Your task to perform on an android device: check battery use Image 0: 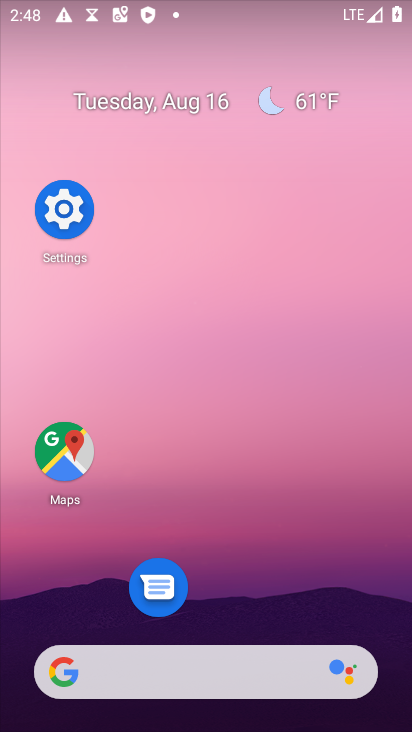
Step 0: drag from (298, 644) to (289, 1)
Your task to perform on an android device: check battery use Image 1: 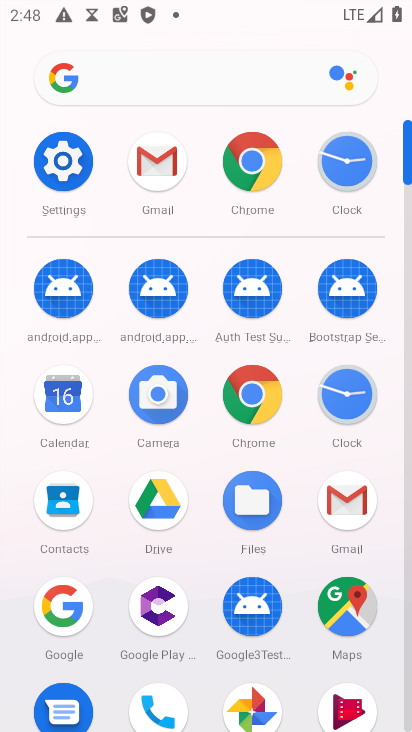
Step 1: click (65, 165)
Your task to perform on an android device: check battery use Image 2: 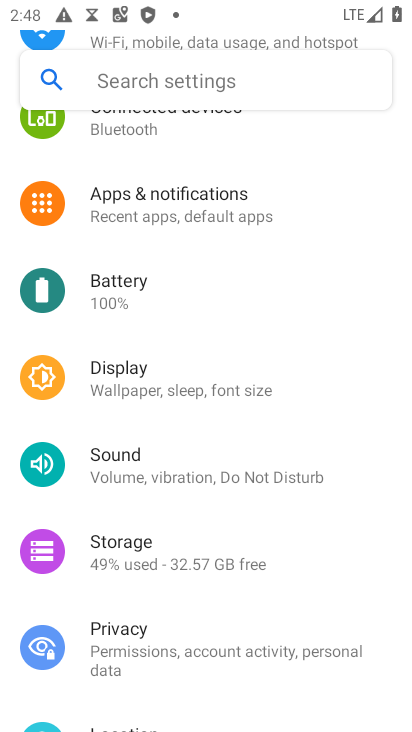
Step 2: click (108, 290)
Your task to perform on an android device: check battery use Image 3: 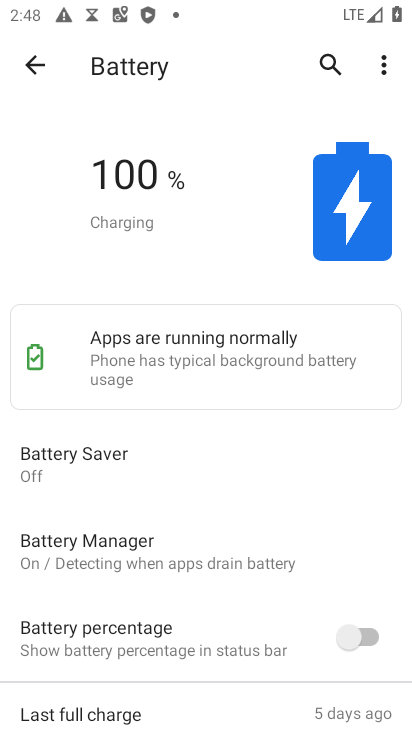
Step 3: click (383, 57)
Your task to perform on an android device: check battery use Image 4: 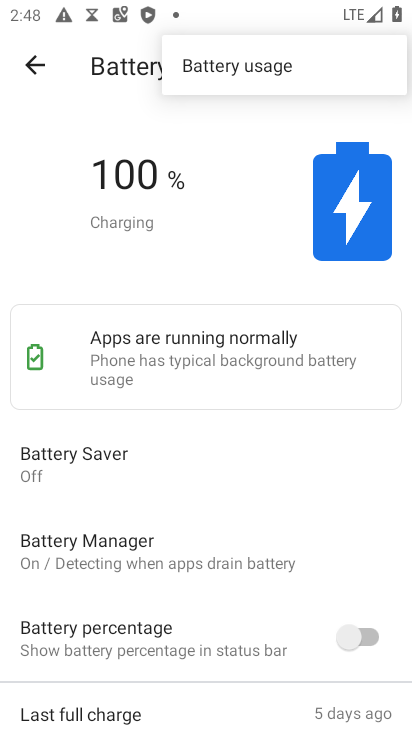
Step 4: click (294, 64)
Your task to perform on an android device: check battery use Image 5: 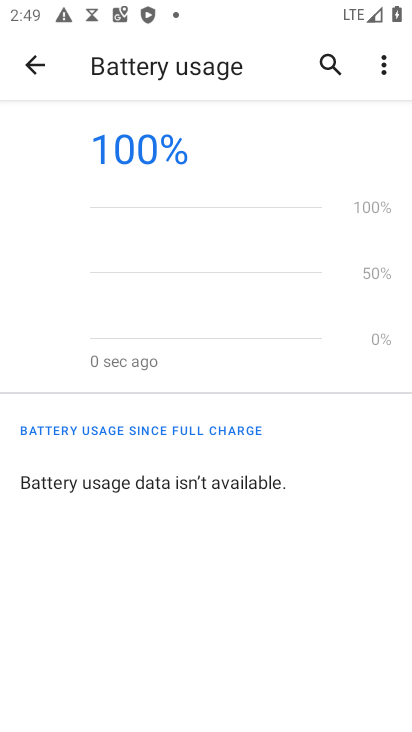
Step 5: click (380, 63)
Your task to perform on an android device: check battery use Image 6: 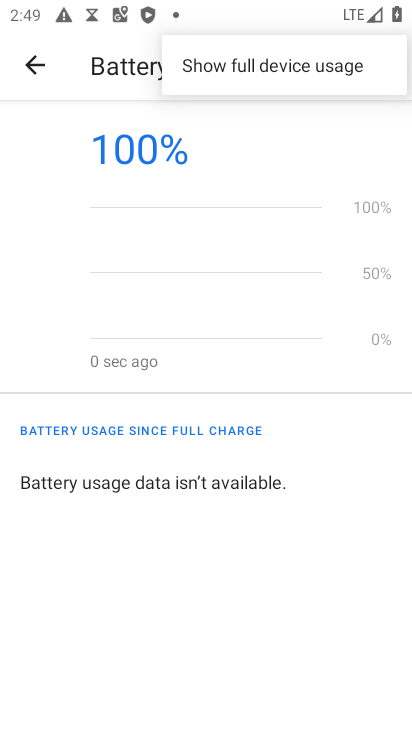
Step 6: click (335, 146)
Your task to perform on an android device: check battery use Image 7: 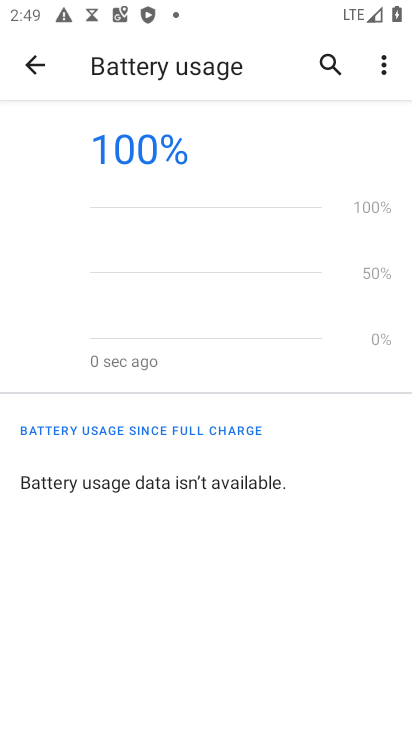
Step 7: task complete